Your task to perform on an android device: Open Chrome and go to the settings page Image 0: 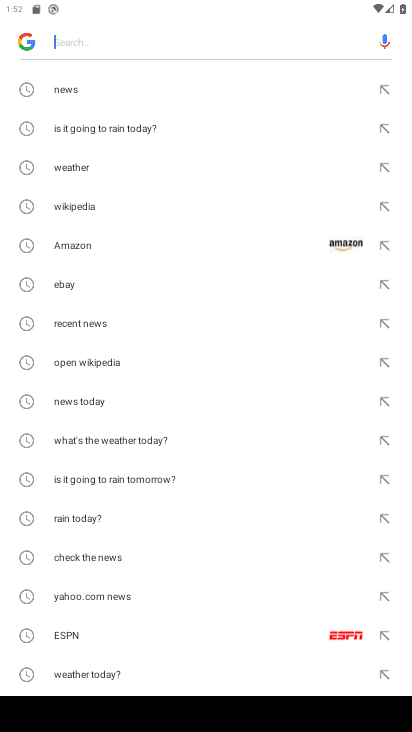
Step 0: press home button
Your task to perform on an android device: Open Chrome and go to the settings page Image 1: 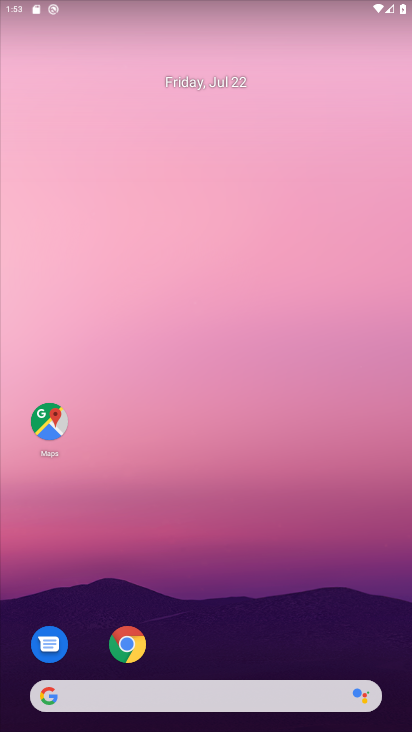
Step 1: click (127, 647)
Your task to perform on an android device: Open Chrome and go to the settings page Image 2: 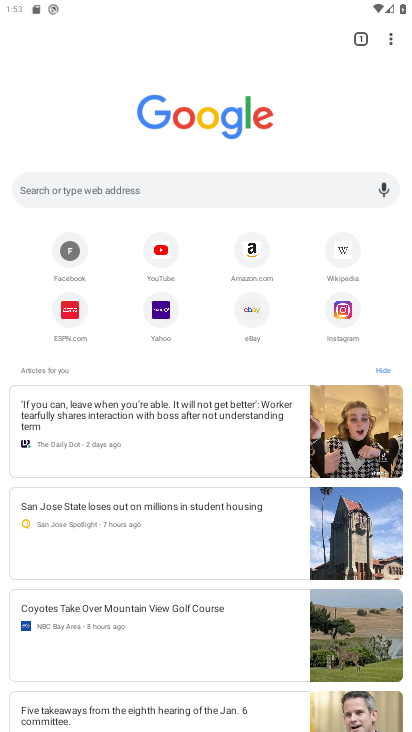
Step 2: click (393, 38)
Your task to perform on an android device: Open Chrome and go to the settings page Image 3: 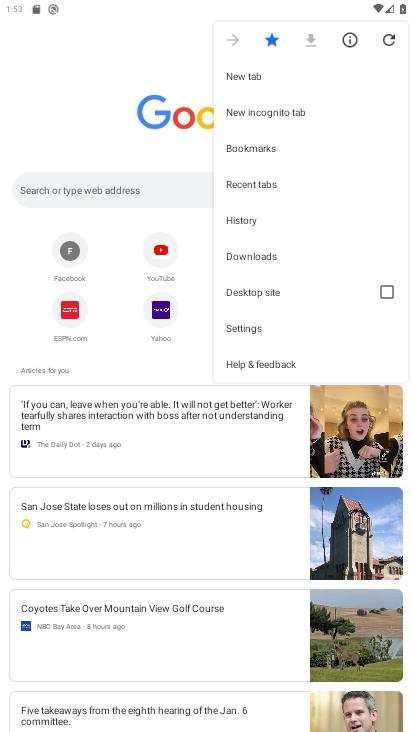
Step 3: click (227, 323)
Your task to perform on an android device: Open Chrome and go to the settings page Image 4: 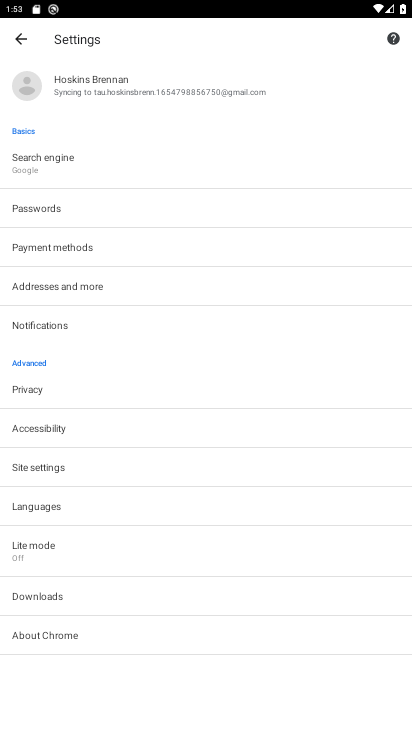
Step 4: task complete